Your task to perform on an android device: toggle show notifications on the lock screen Image 0: 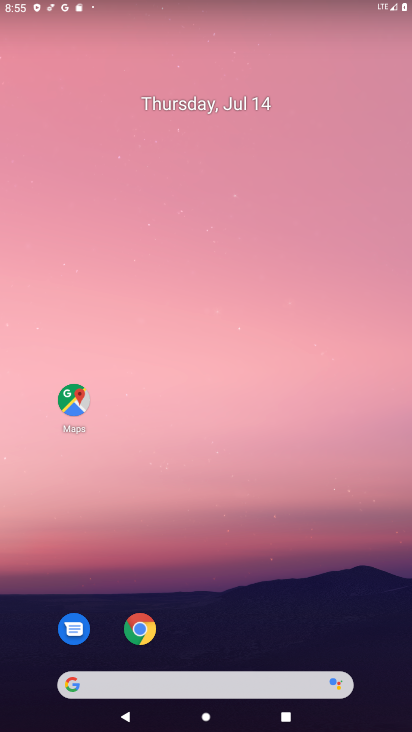
Step 0: drag from (55, 525) to (258, 80)
Your task to perform on an android device: toggle show notifications on the lock screen Image 1: 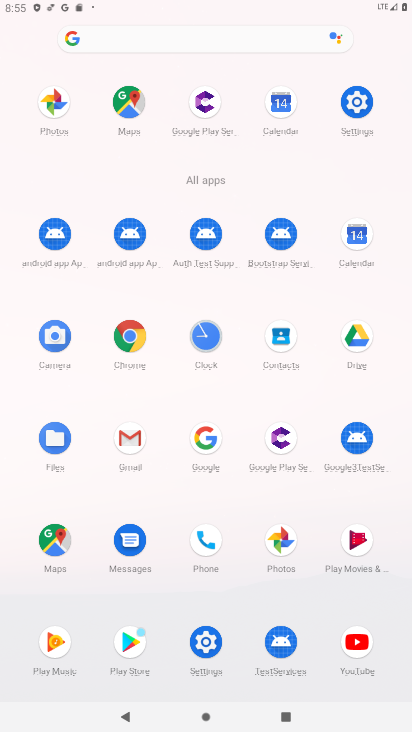
Step 1: click (352, 111)
Your task to perform on an android device: toggle show notifications on the lock screen Image 2: 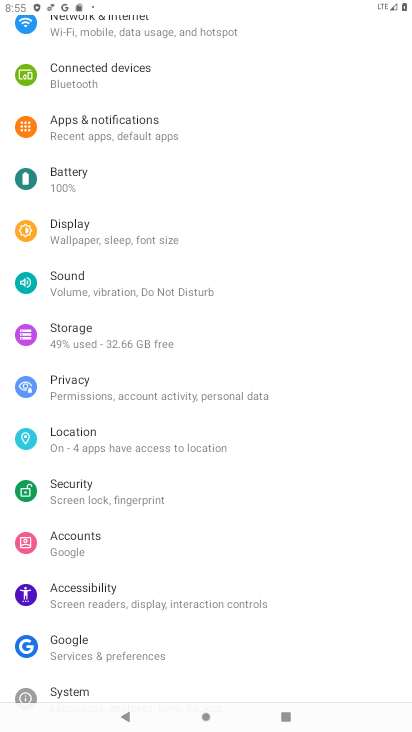
Step 2: click (162, 128)
Your task to perform on an android device: toggle show notifications on the lock screen Image 3: 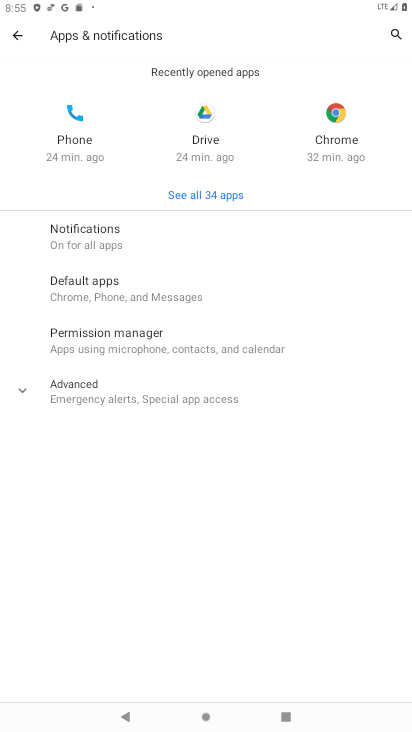
Step 3: click (167, 240)
Your task to perform on an android device: toggle show notifications on the lock screen Image 4: 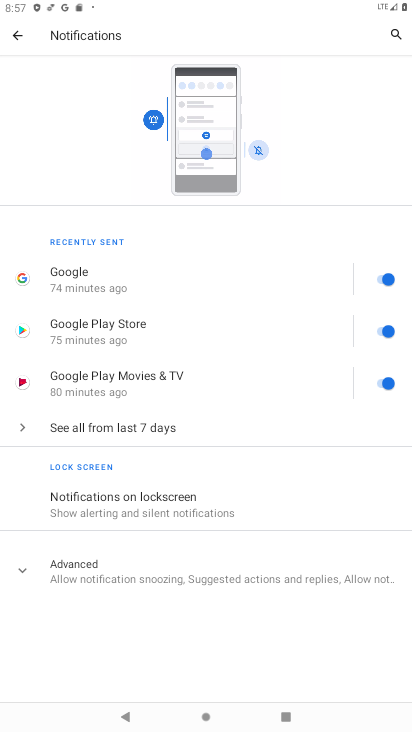
Step 4: click (101, 529)
Your task to perform on an android device: toggle show notifications on the lock screen Image 5: 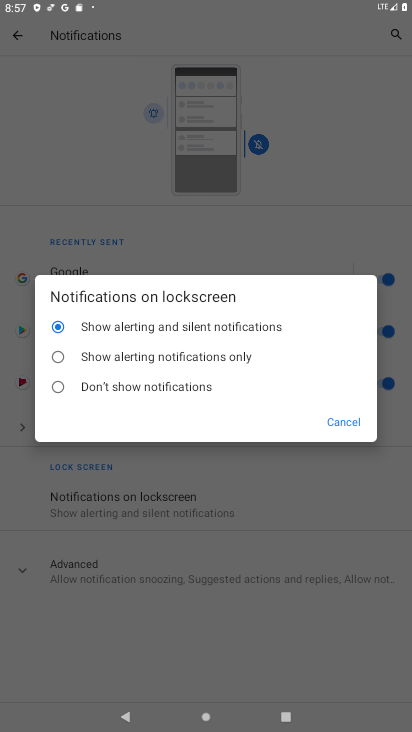
Step 5: click (130, 389)
Your task to perform on an android device: toggle show notifications on the lock screen Image 6: 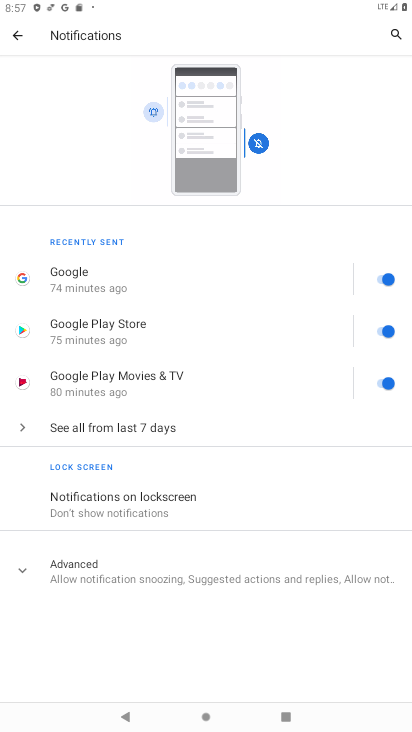
Step 6: task complete